Your task to perform on an android device: toggle data saver in the chrome app Image 0: 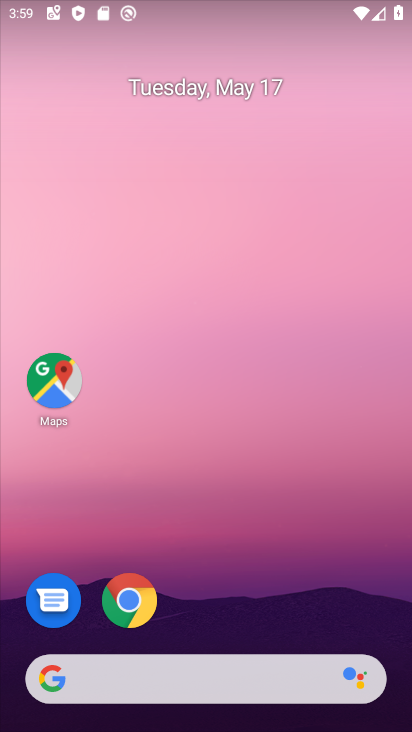
Step 0: click (136, 596)
Your task to perform on an android device: toggle data saver in the chrome app Image 1: 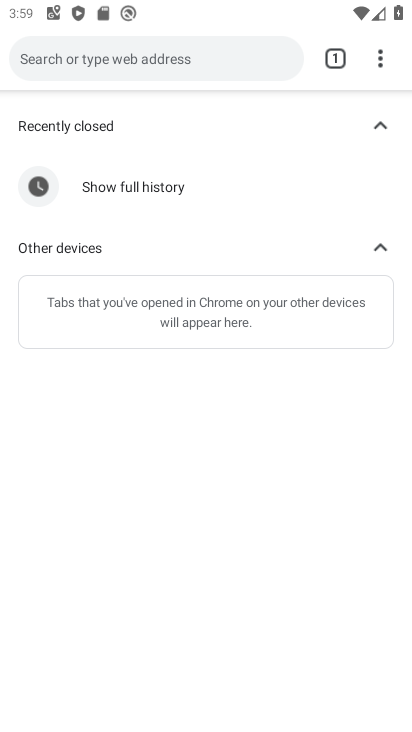
Step 1: click (383, 59)
Your task to perform on an android device: toggle data saver in the chrome app Image 2: 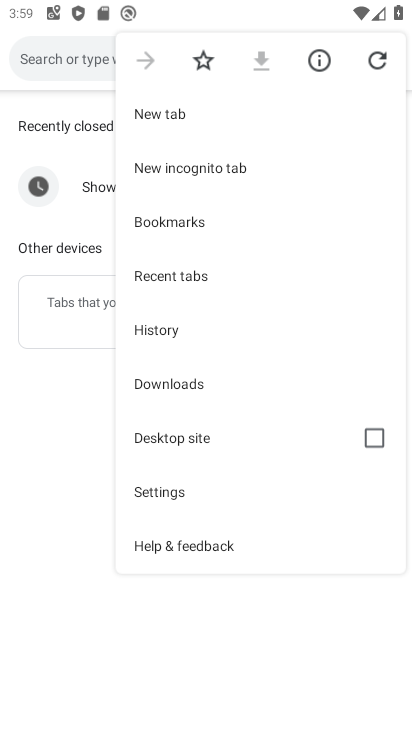
Step 2: click (181, 490)
Your task to perform on an android device: toggle data saver in the chrome app Image 3: 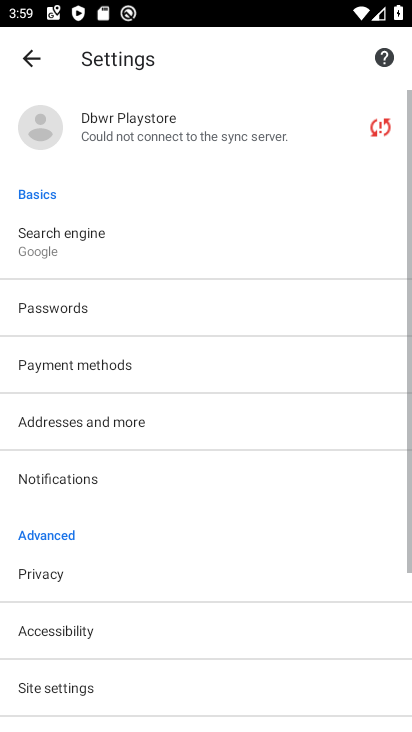
Step 3: drag from (92, 614) to (135, 337)
Your task to perform on an android device: toggle data saver in the chrome app Image 4: 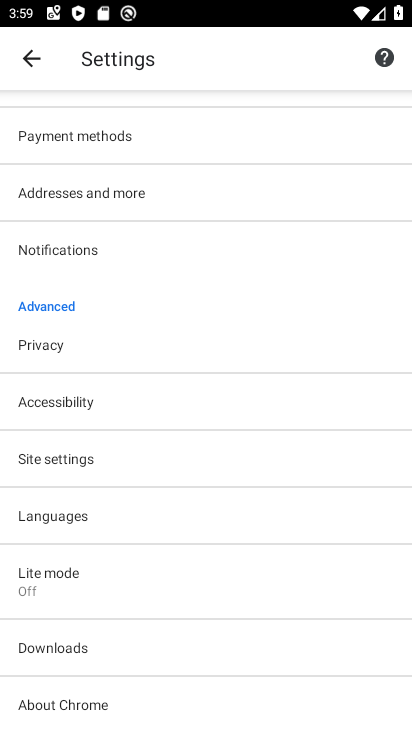
Step 4: click (77, 574)
Your task to perform on an android device: toggle data saver in the chrome app Image 5: 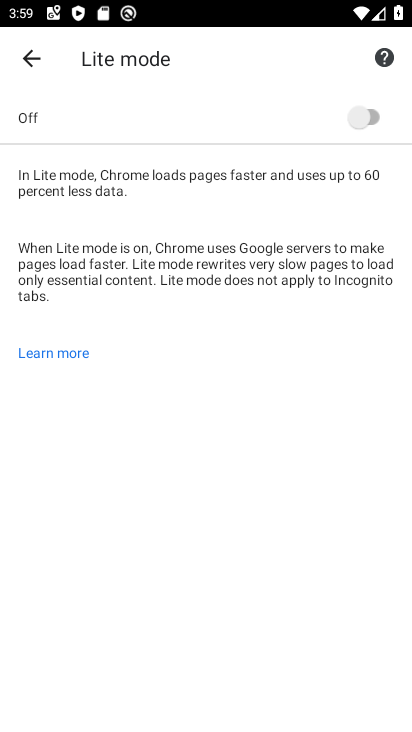
Step 5: click (384, 119)
Your task to perform on an android device: toggle data saver in the chrome app Image 6: 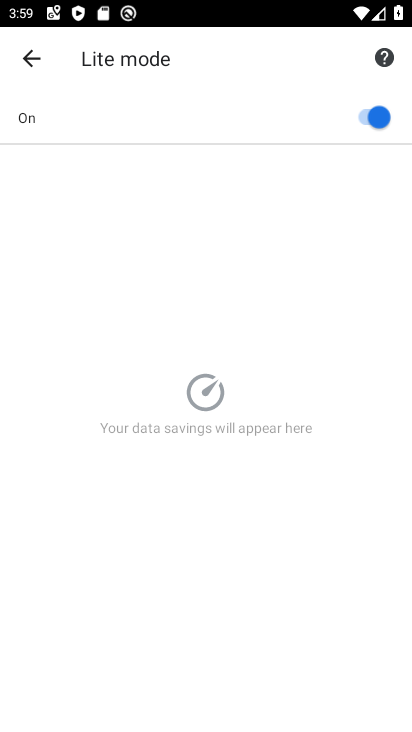
Step 6: task complete